Your task to perform on an android device: See recent photos Image 0: 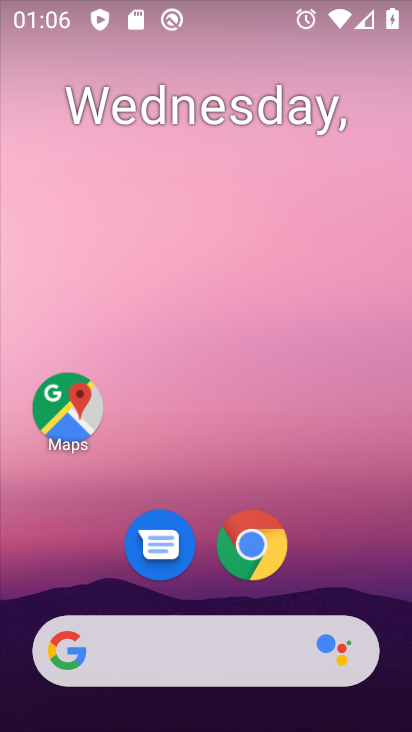
Step 0: drag from (335, 500) to (330, 42)
Your task to perform on an android device: See recent photos Image 1: 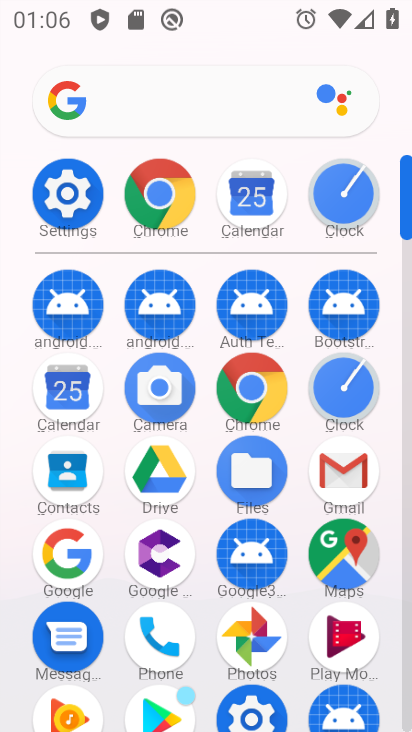
Step 1: click (255, 625)
Your task to perform on an android device: See recent photos Image 2: 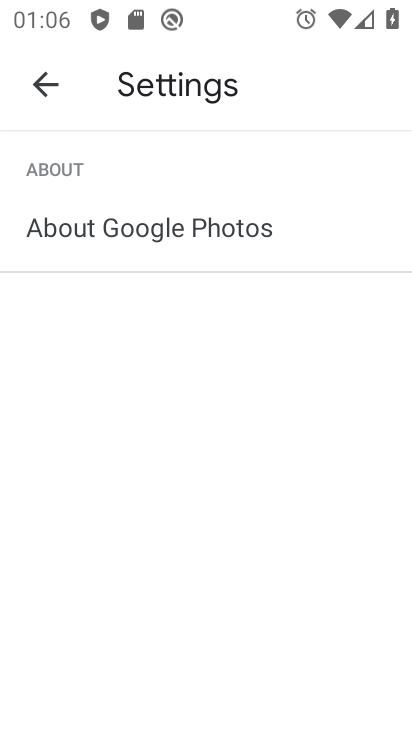
Step 2: click (51, 92)
Your task to perform on an android device: See recent photos Image 3: 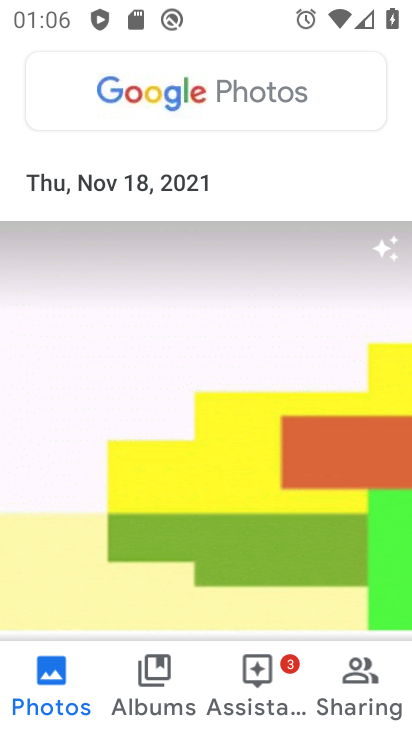
Step 3: click (58, 81)
Your task to perform on an android device: See recent photos Image 4: 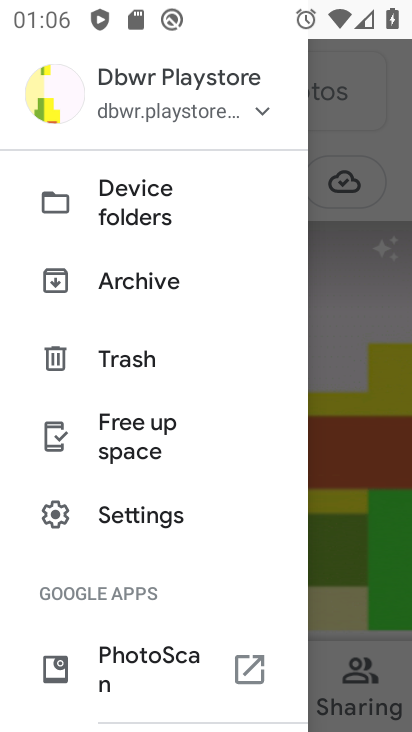
Step 4: drag from (184, 535) to (241, 155)
Your task to perform on an android device: See recent photos Image 5: 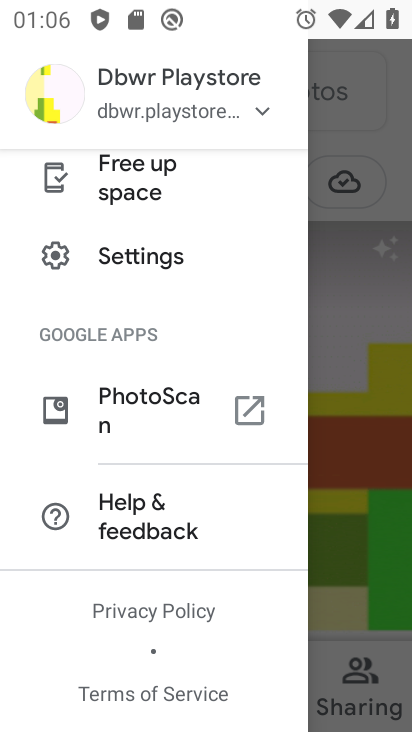
Step 5: drag from (182, 228) to (183, 665)
Your task to perform on an android device: See recent photos Image 6: 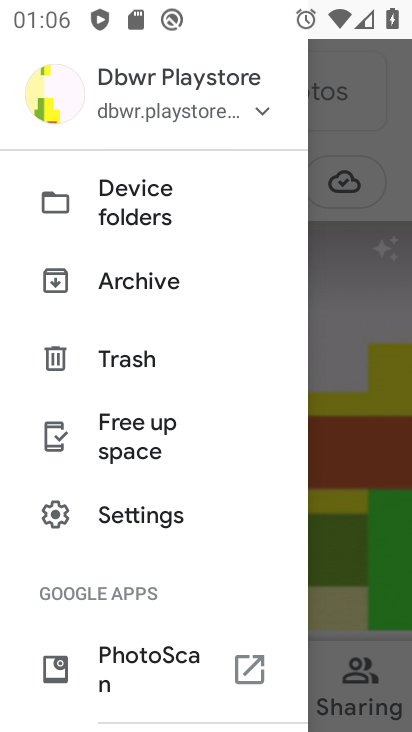
Step 6: click (332, 284)
Your task to perform on an android device: See recent photos Image 7: 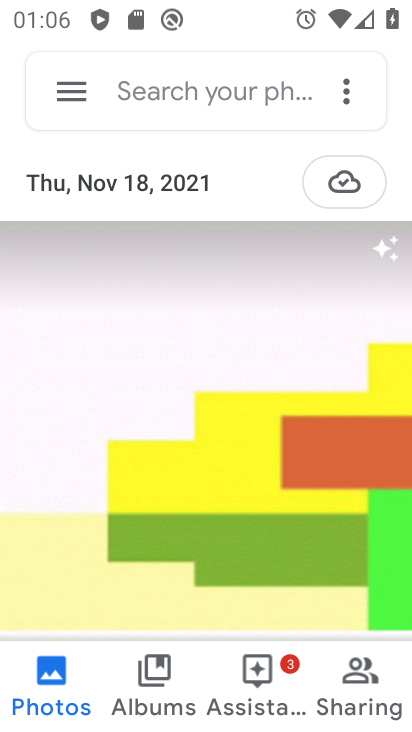
Step 7: task complete